Your task to perform on an android device: What is the news today? Image 0: 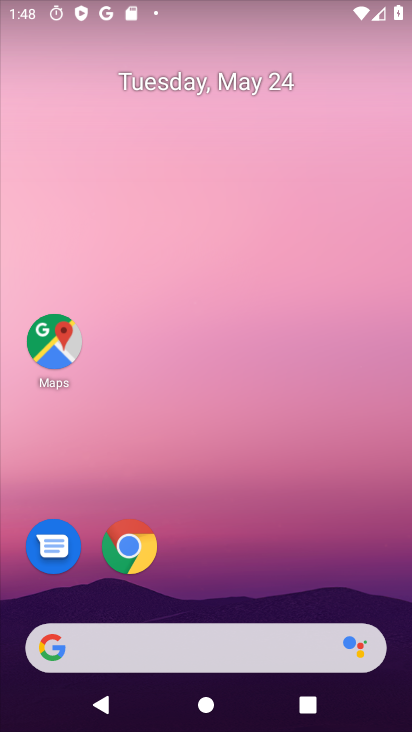
Step 0: drag from (29, 267) to (409, 161)
Your task to perform on an android device: What is the news today? Image 1: 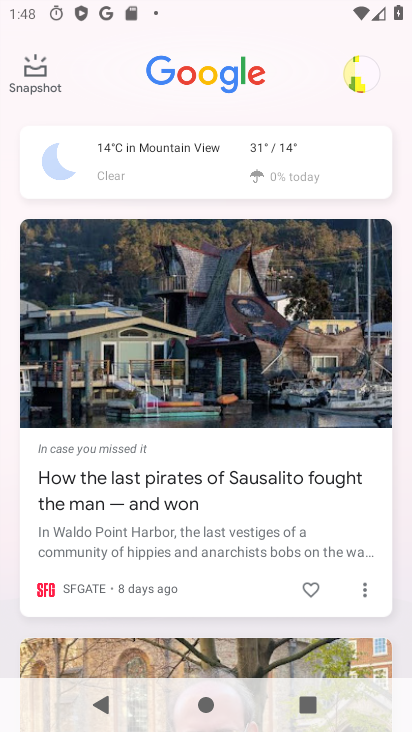
Step 1: task complete